Your task to perform on an android device: uninstall "VLC for Android" Image 0: 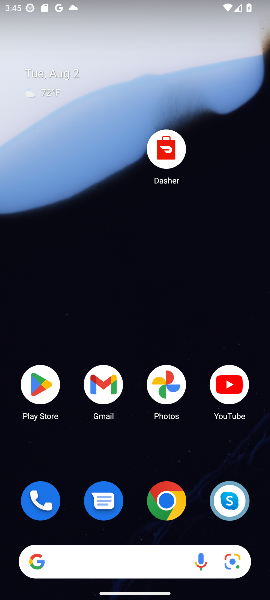
Step 0: click (48, 390)
Your task to perform on an android device: uninstall "VLC for Android" Image 1: 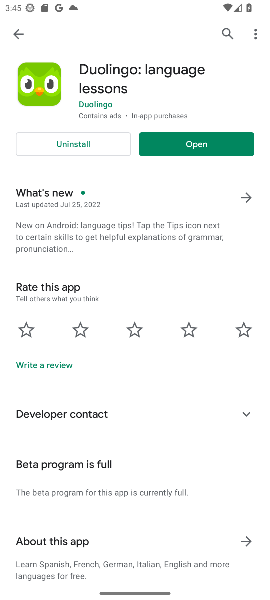
Step 1: click (229, 33)
Your task to perform on an android device: uninstall "VLC for Android" Image 2: 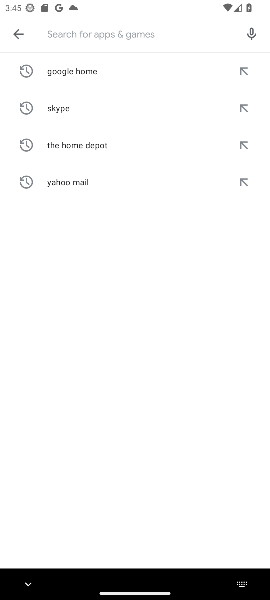
Step 2: type "VLC for Android"
Your task to perform on an android device: uninstall "VLC for Android" Image 3: 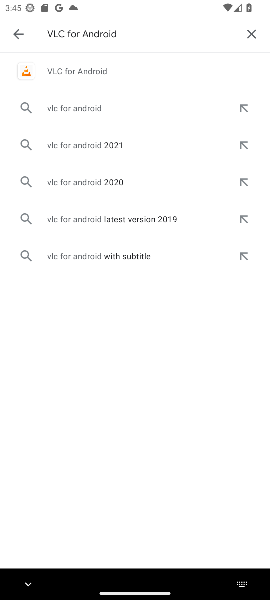
Step 3: click (94, 77)
Your task to perform on an android device: uninstall "VLC for Android" Image 4: 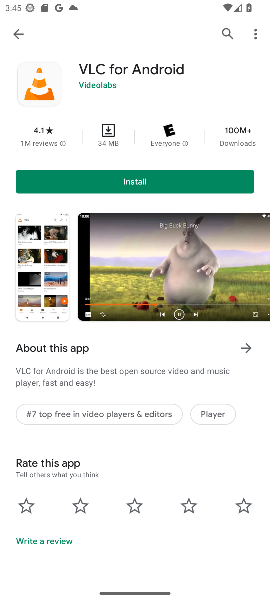
Step 4: task complete